Your task to perform on an android device: turn on improve location accuracy Image 0: 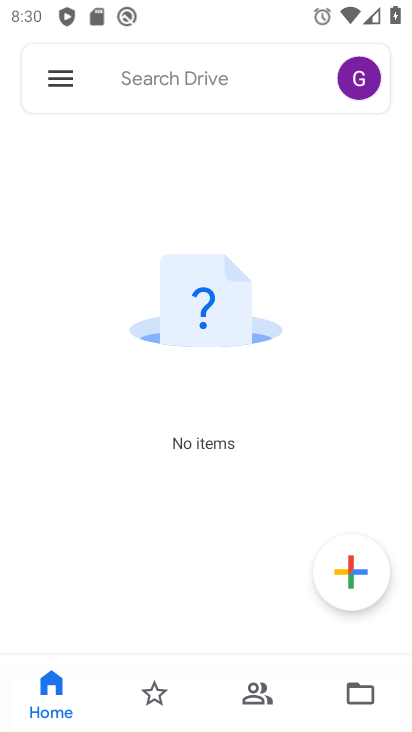
Step 0: press home button
Your task to perform on an android device: turn on improve location accuracy Image 1: 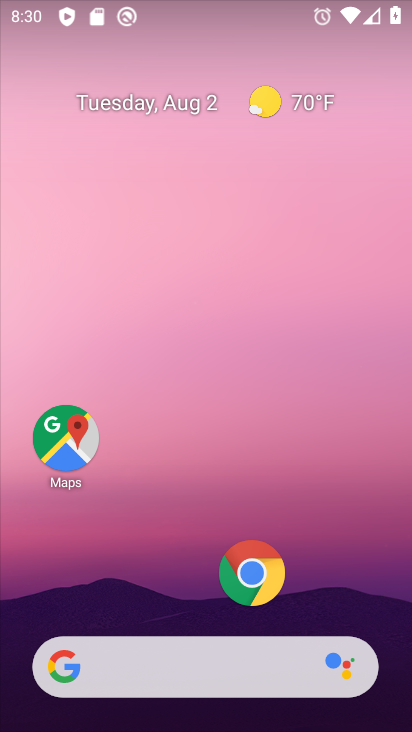
Step 1: drag from (190, 608) to (209, 86)
Your task to perform on an android device: turn on improve location accuracy Image 2: 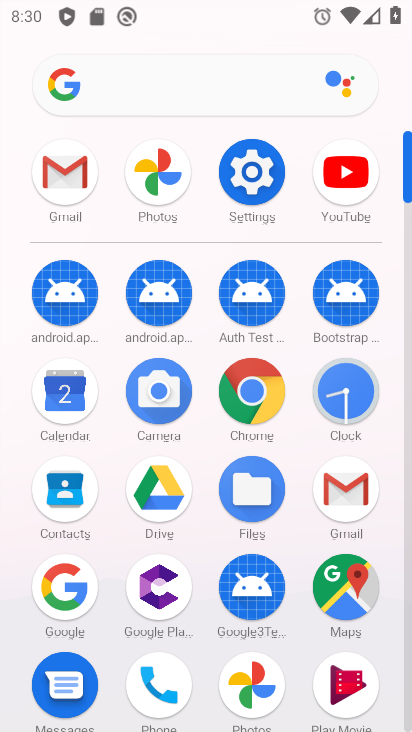
Step 2: click (248, 164)
Your task to perform on an android device: turn on improve location accuracy Image 3: 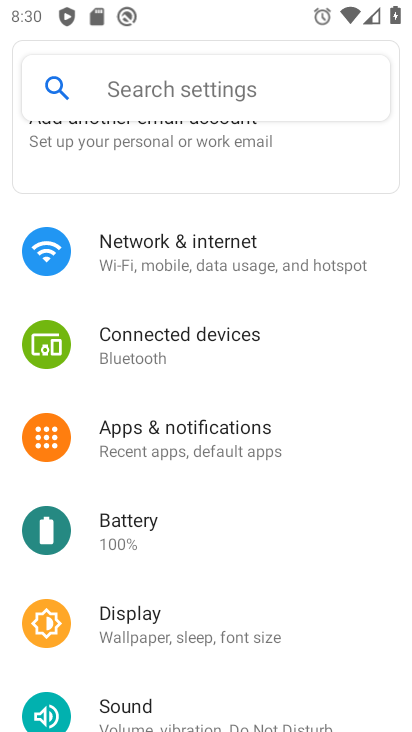
Step 3: drag from (181, 683) to (200, 247)
Your task to perform on an android device: turn on improve location accuracy Image 4: 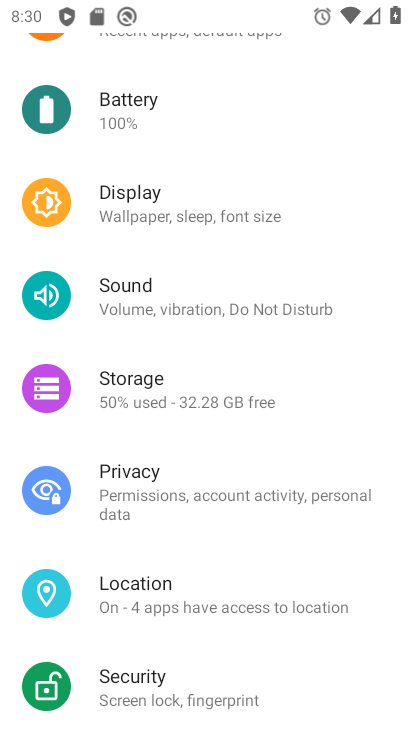
Step 4: click (190, 581)
Your task to perform on an android device: turn on improve location accuracy Image 5: 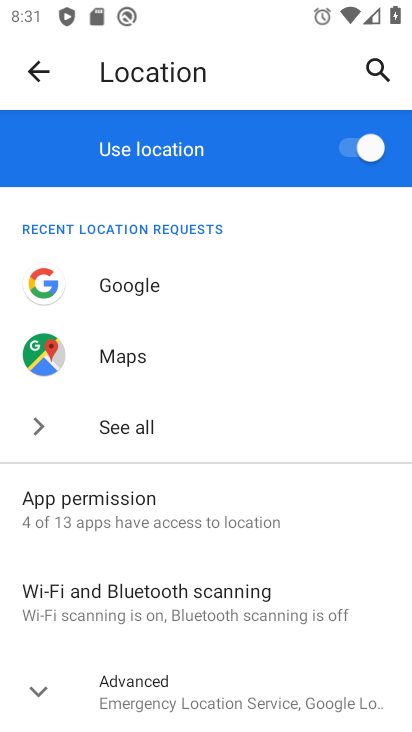
Step 5: click (109, 679)
Your task to perform on an android device: turn on improve location accuracy Image 6: 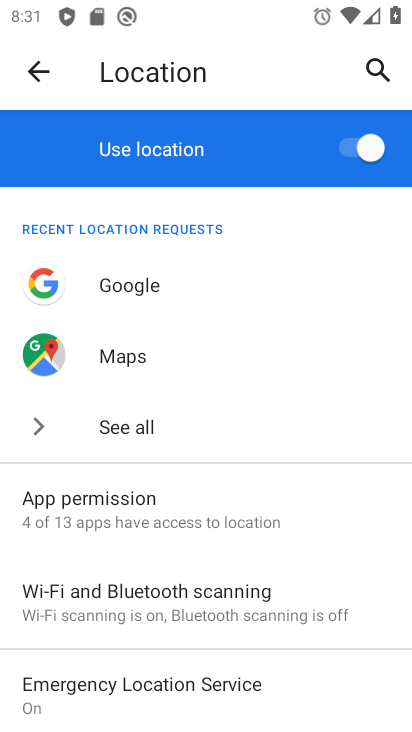
Step 6: drag from (174, 661) to (203, 163)
Your task to perform on an android device: turn on improve location accuracy Image 7: 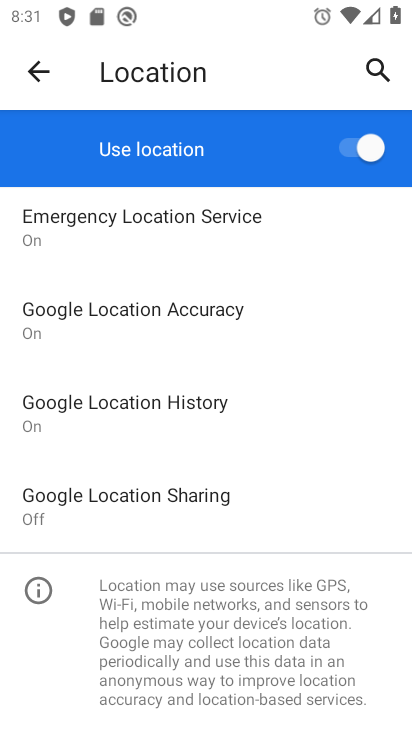
Step 7: click (108, 325)
Your task to perform on an android device: turn on improve location accuracy Image 8: 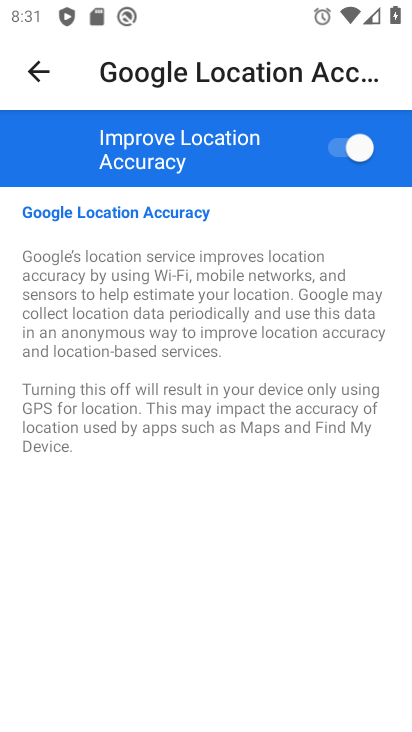
Step 8: task complete